Your task to perform on an android device: Open network settings Image 0: 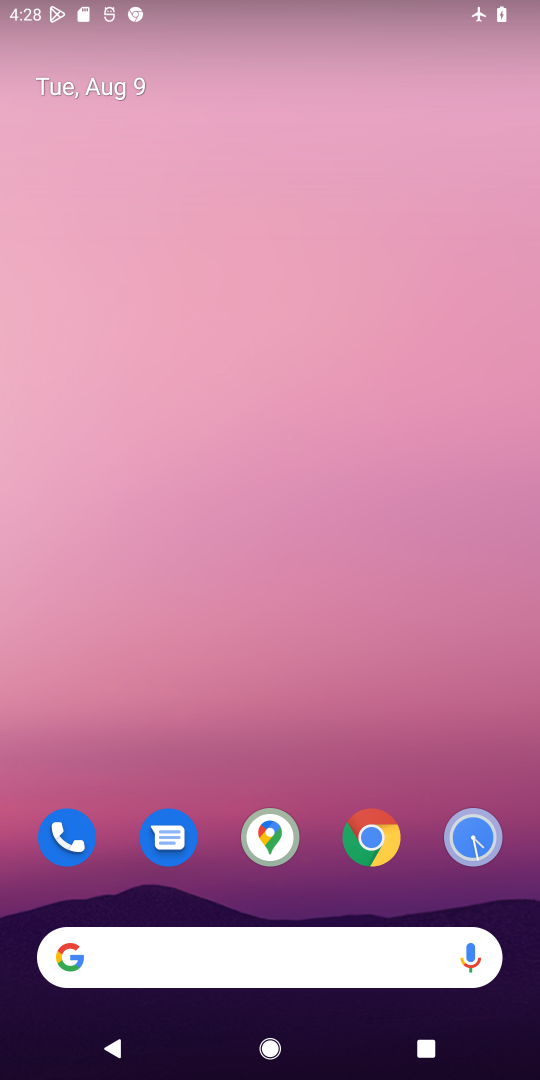
Step 0: drag from (266, 890) to (228, 24)
Your task to perform on an android device: Open network settings Image 1: 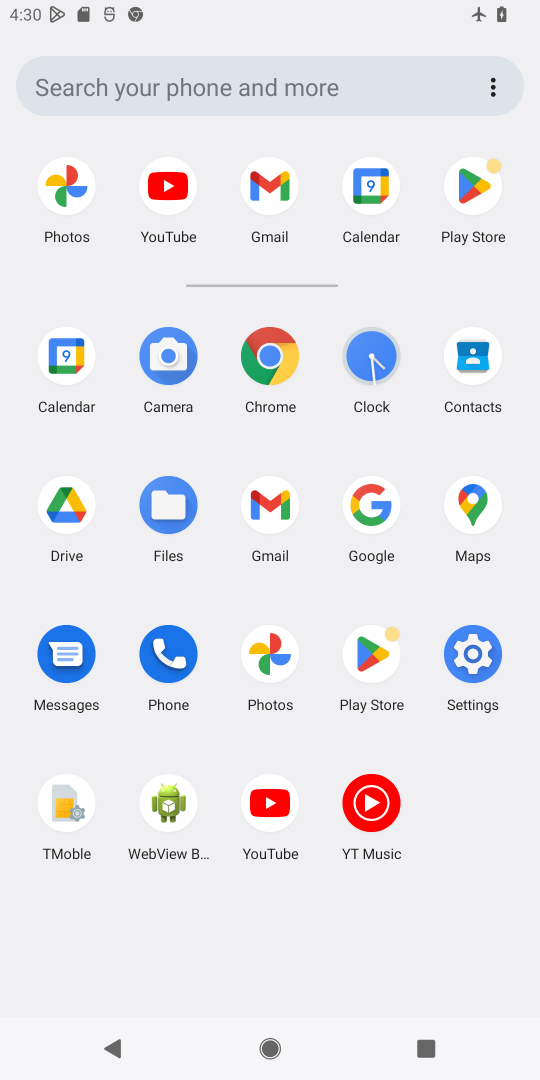
Step 1: click (446, 651)
Your task to perform on an android device: Open network settings Image 2: 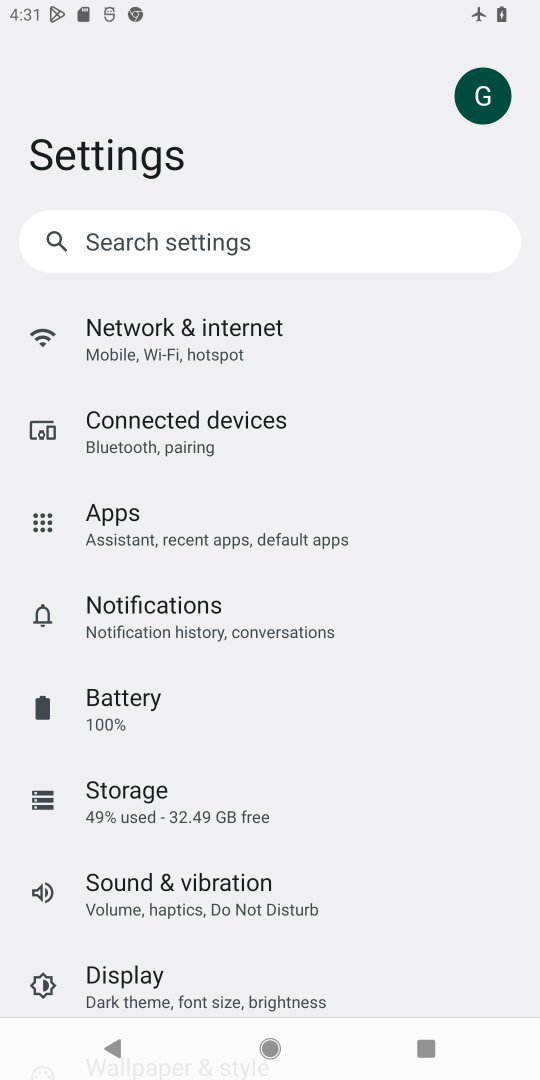
Step 2: click (164, 304)
Your task to perform on an android device: Open network settings Image 3: 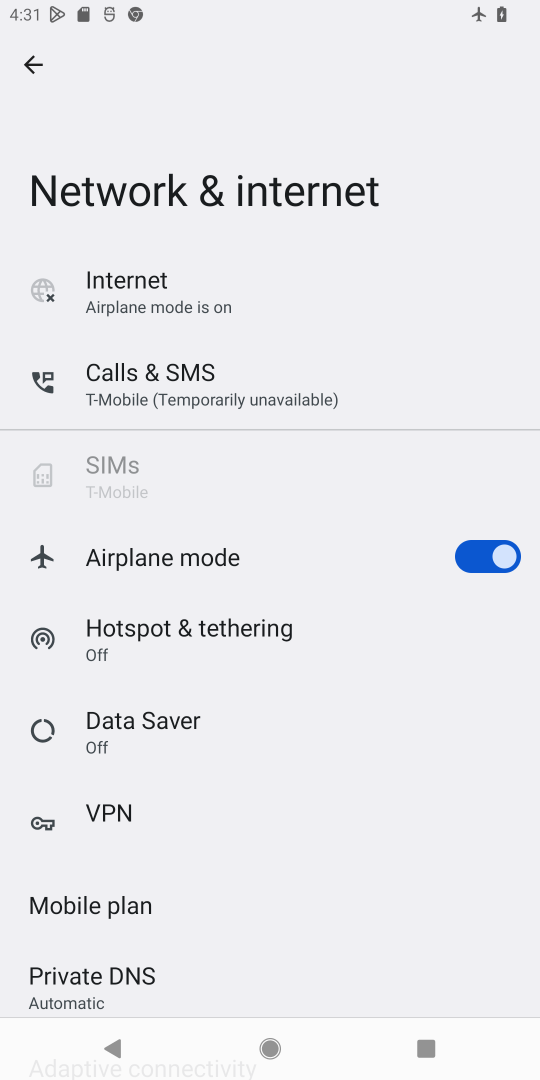
Step 3: task complete